Your task to perform on an android device: Go to notification settings Image 0: 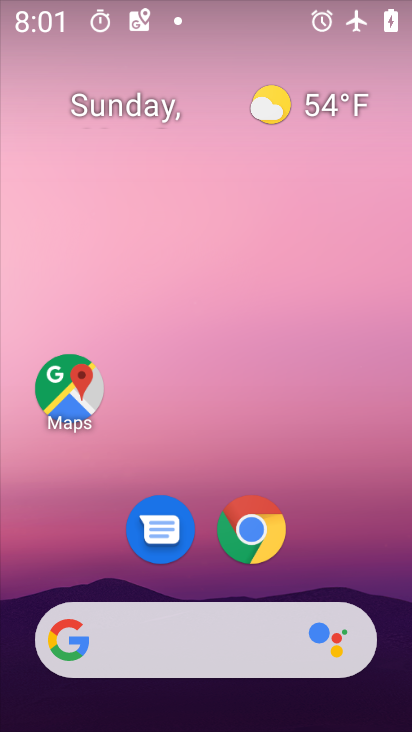
Step 0: drag from (198, 581) to (261, 102)
Your task to perform on an android device: Go to notification settings Image 1: 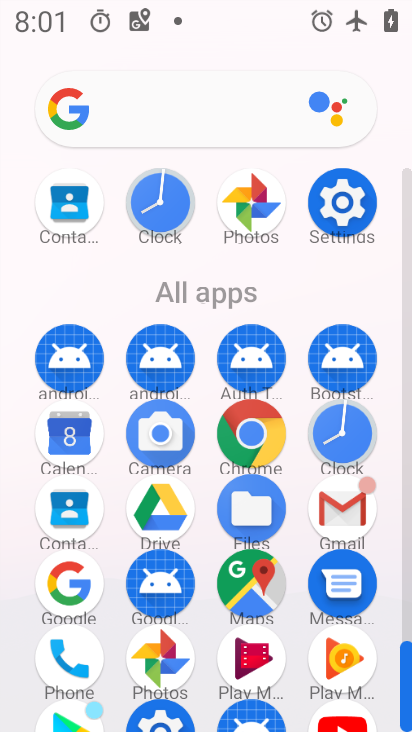
Step 1: click (352, 203)
Your task to perform on an android device: Go to notification settings Image 2: 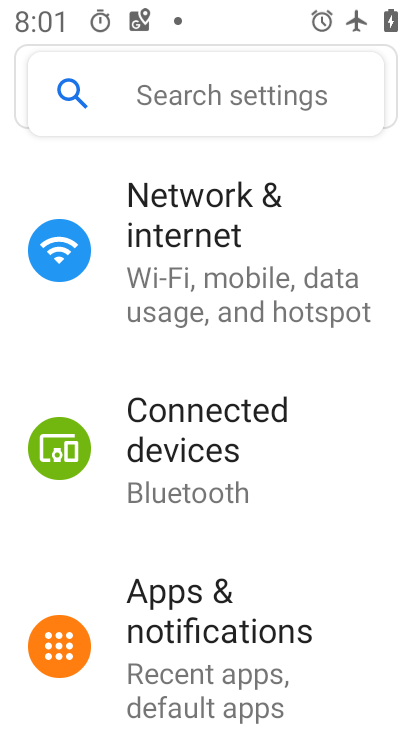
Step 2: drag from (206, 591) to (233, 399)
Your task to perform on an android device: Go to notification settings Image 3: 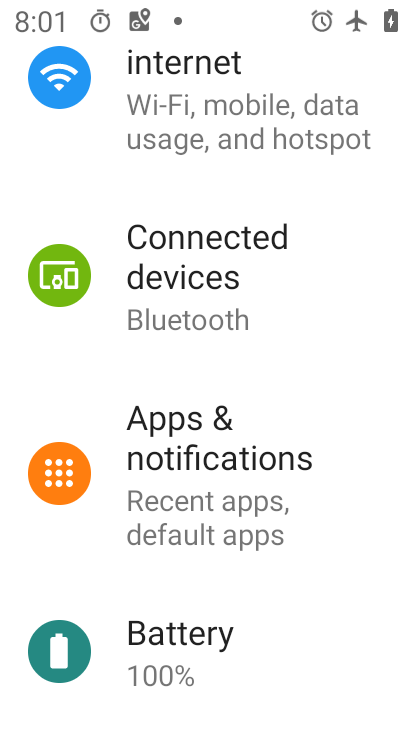
Step 3: click (216, 454)
Your task to perform on an android device: Go to notification settings Image 4: 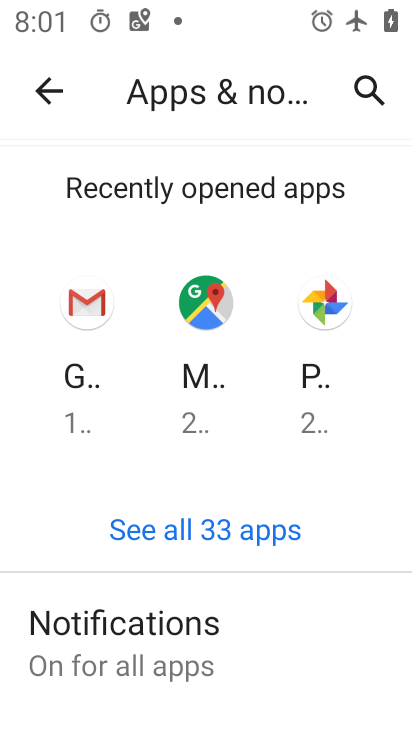
Step 4: drag from (188, 610) to (208, 381)
Your task to perform on an android device: Go to notification settings Image 5: 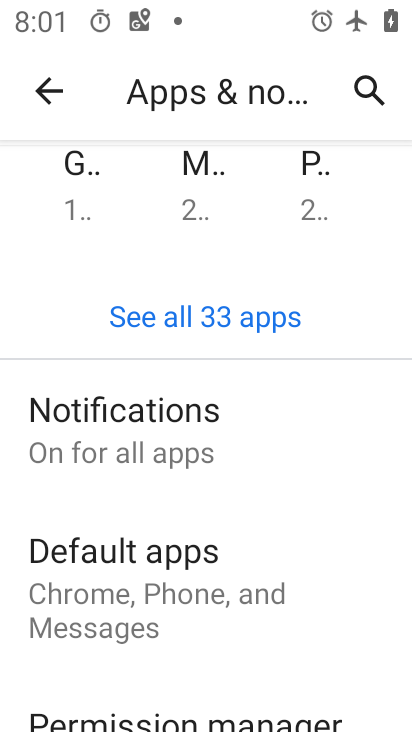
Step 5: click (97, 471)
Your task to perform on an android device: Go to notification settings Image 6: 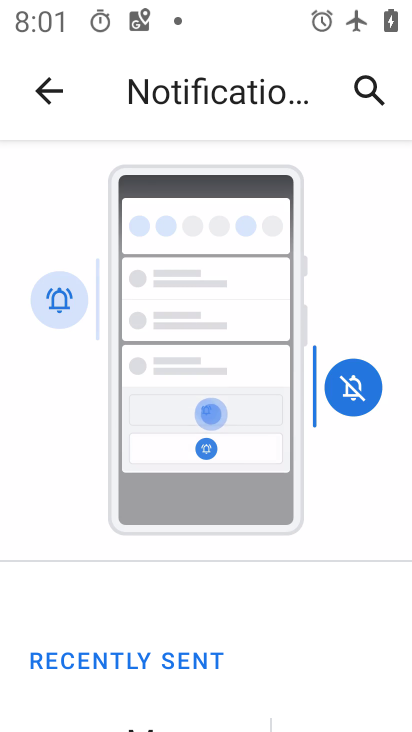
Step 6: task complete